Your task to perform on an android device: delete browsing data in the chrome app Image 0: 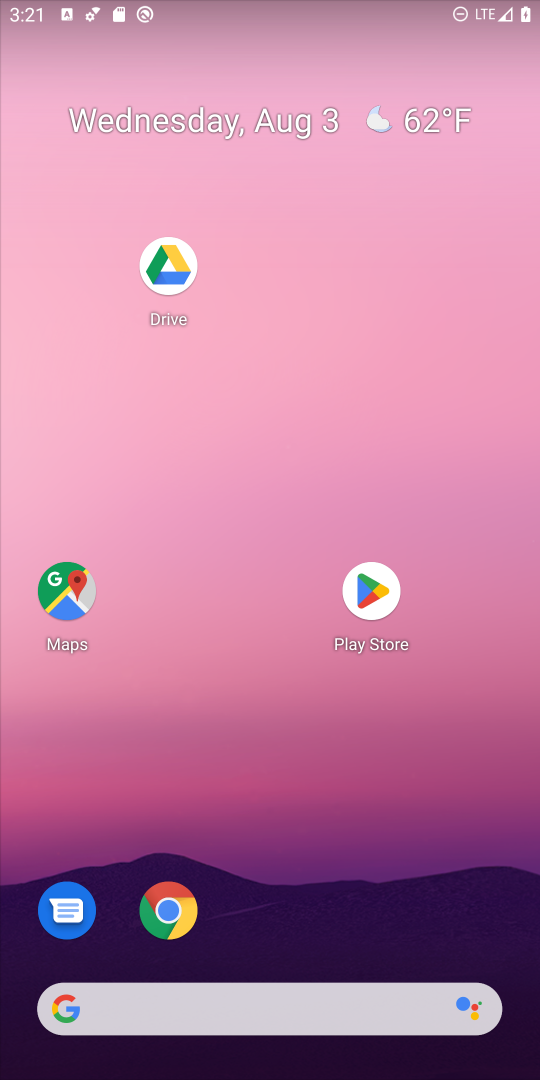
Step 0: drag from (329, 937) to (376, 10)
Your task to perform on an android device: delete browsing data in the chrome app Image 1: 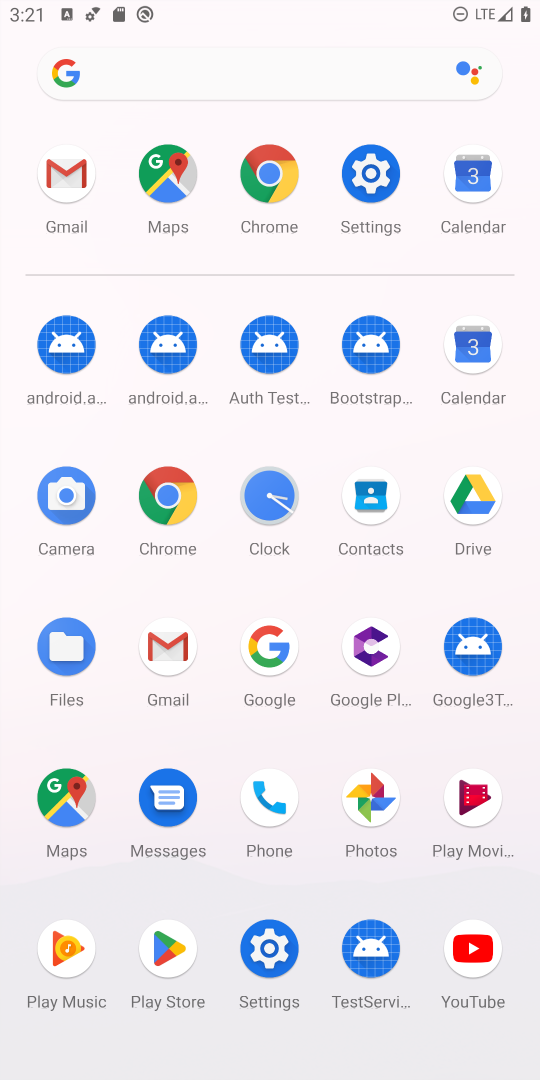
Step 1: click (166, 503)
Your task to perform on an android device: delete browsing data in the chrome app Image 2: 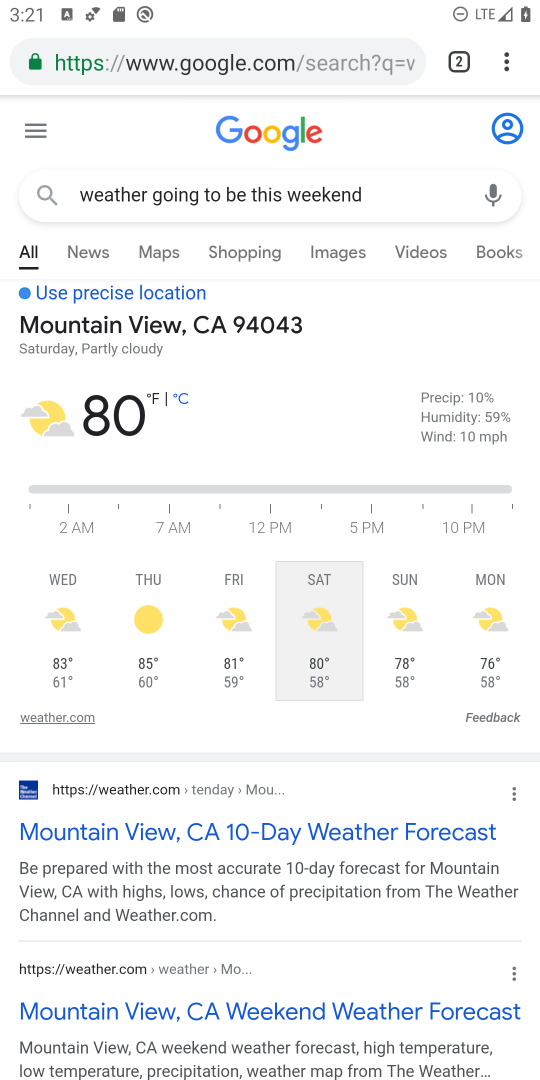
Step 2: click (511, 52)
Your task to perform on an android device: delete browsing data in the chrome app Image 3: 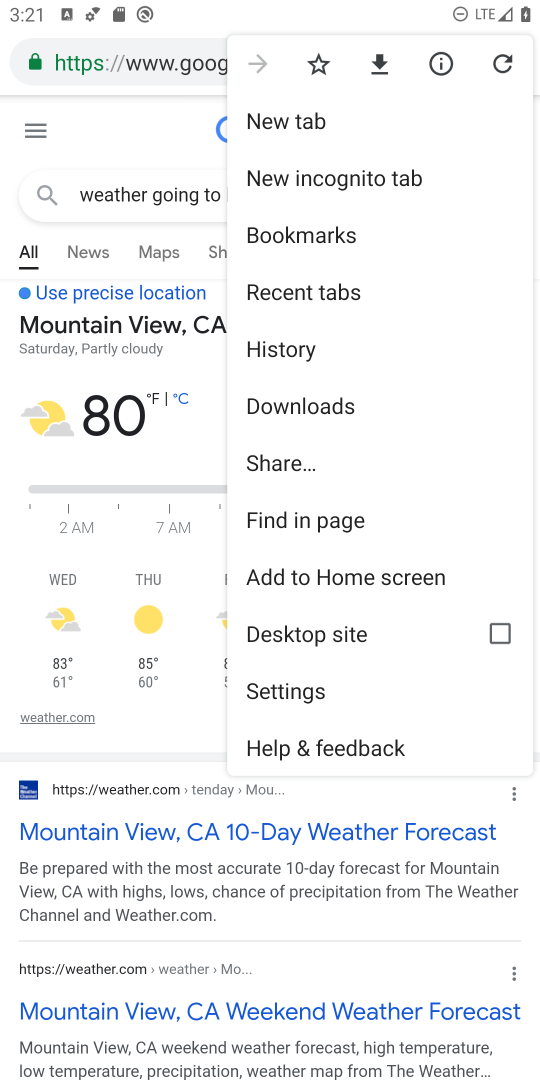
Step 3: click (316, 352)
Your task to perform on an android device: delete browsing data in the chrome app Image 4: 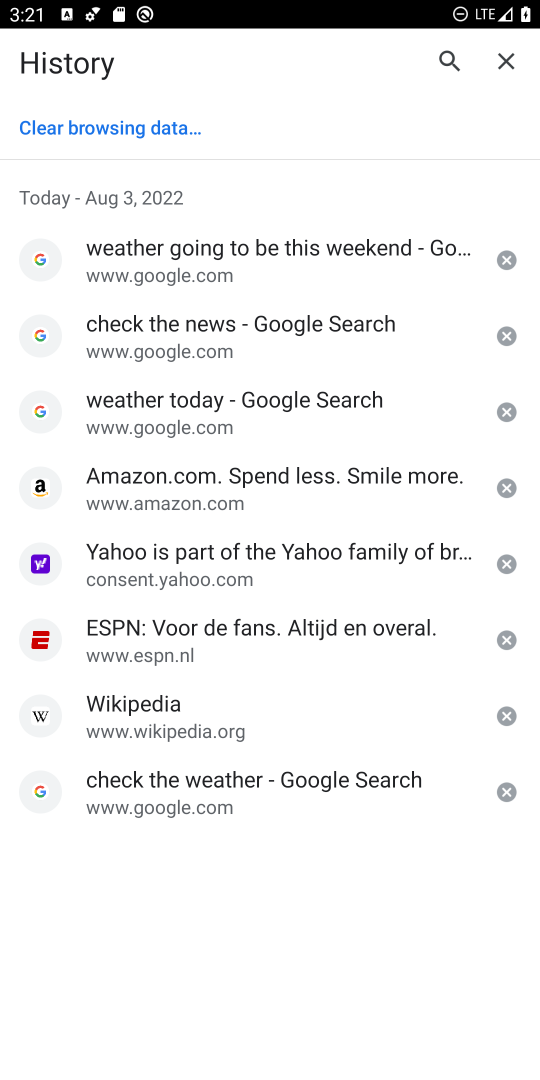
Step 4: click (150, 124)
Your task to perform on an android device: delete browsing data in the chrome app Image 5: 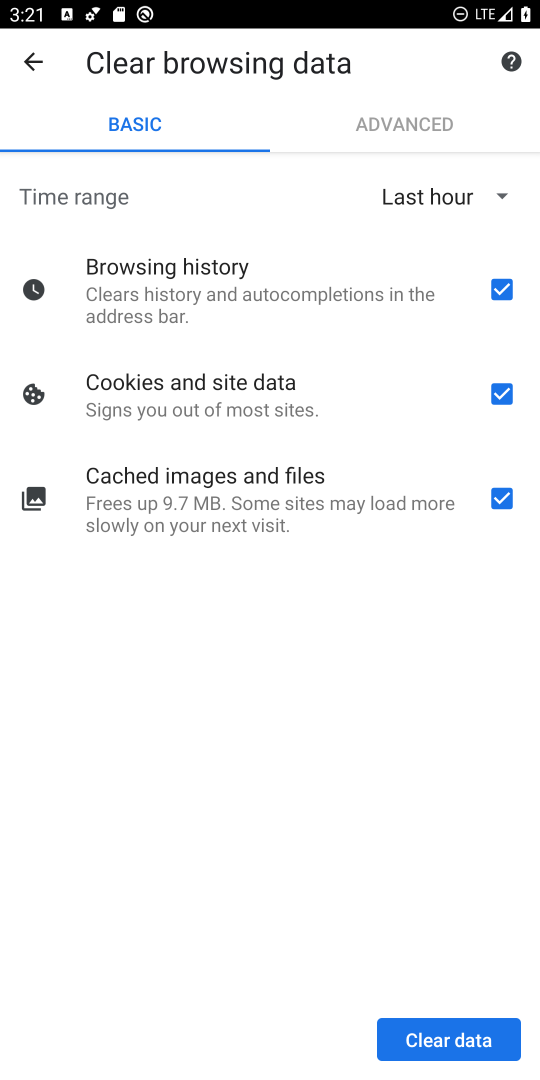
Step 5: click (417, 1045)
Your task to perform on an android device: delete browsing data in the chrome app Image 6: 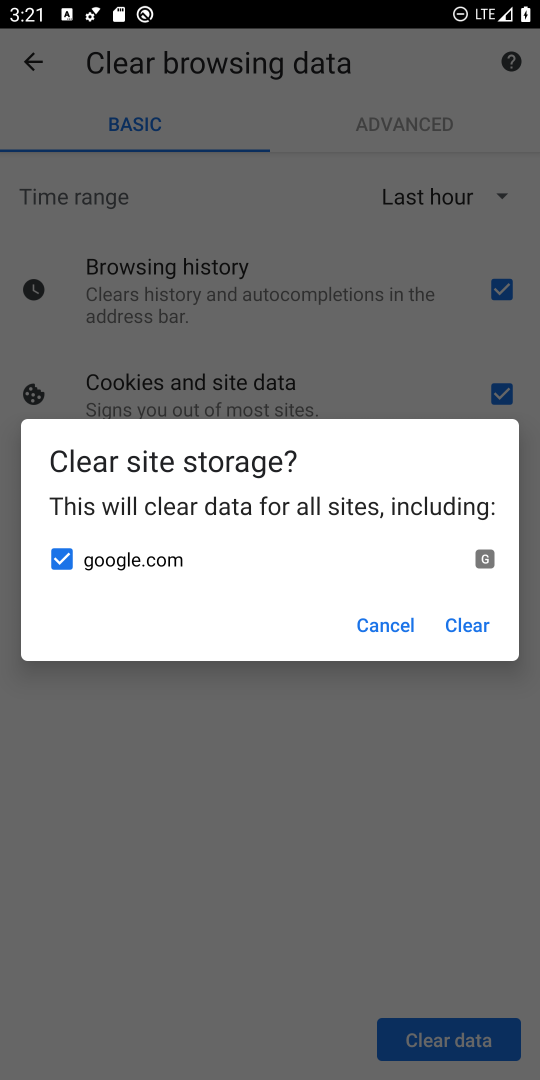
Step 6: click (480, 626)
Your task to perform on an android device: delete browsing data in the chrome app Image 7: 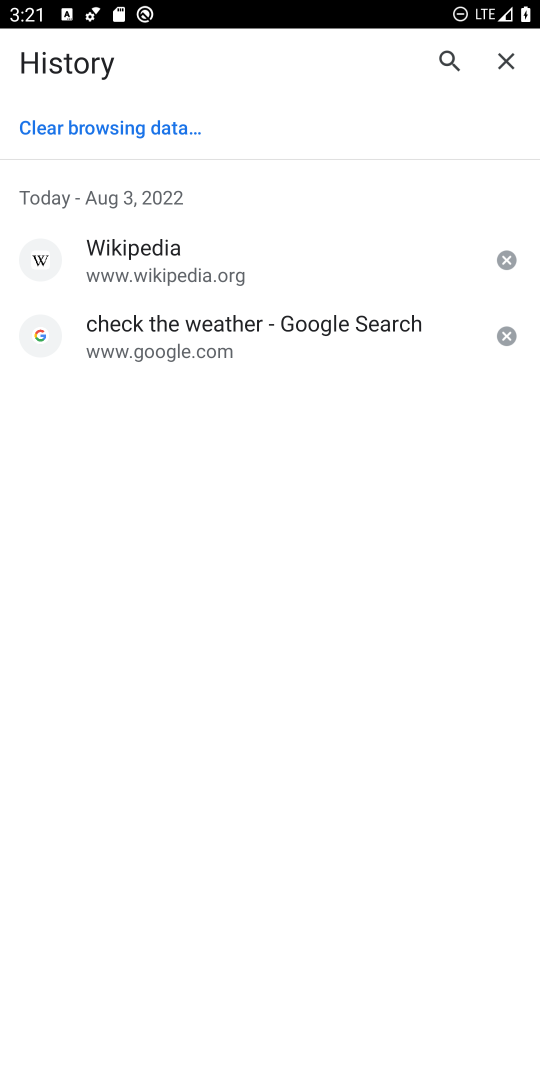
Step 7: click (505, 255)
Your task to perform on an android device: delete browsing data in the chrome app Image 8: 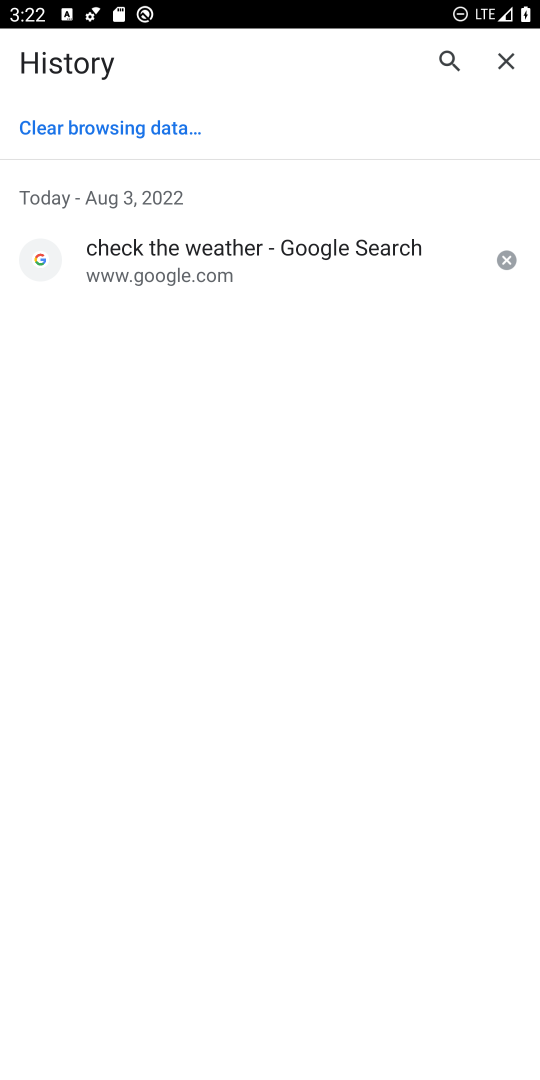
Step 8: click (500, 251)
Your task to perform on an android device: delete browsing data in the chrome app Image 9: 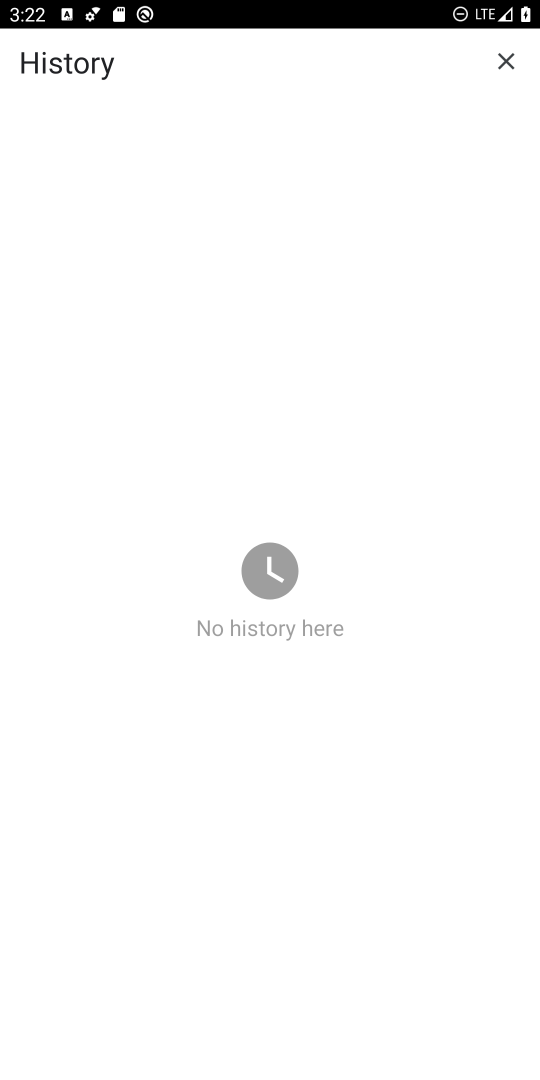
Step 9: task complete